Your task to perform on an android device: open a bookmark in the chrome app Image 0: 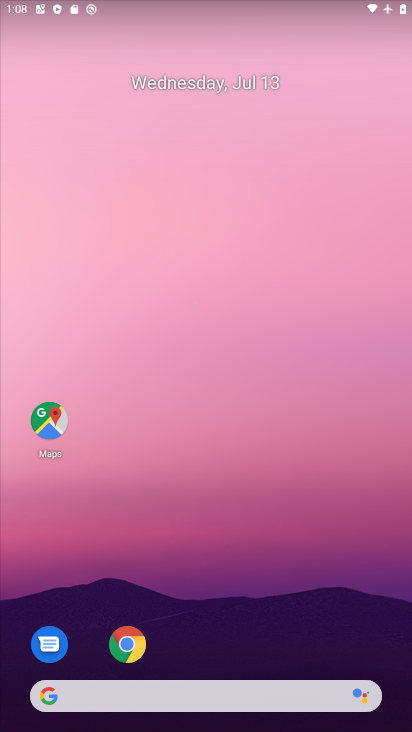
Step 0: drag from (301, 641) to (272, 134)
Your task to perform on an android device: open a bookmark in the chrome app Image 1: 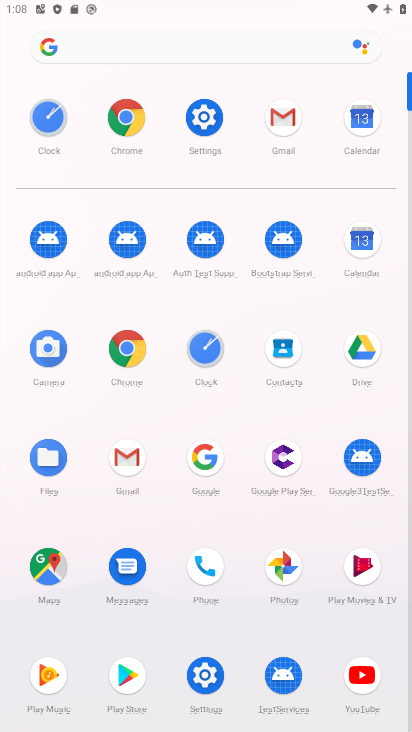
Step 1: click (131, 345)
Your task to perform on an android device: open a bookmark in the chrome app Image 2: 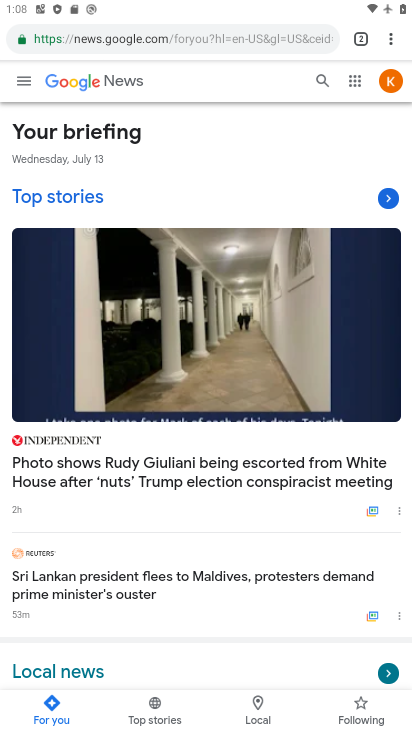
Step 2: drag from (395, 44) to (273, 155)
Your task to perform on an android device: open a bookmark in the chrome app Image 3: 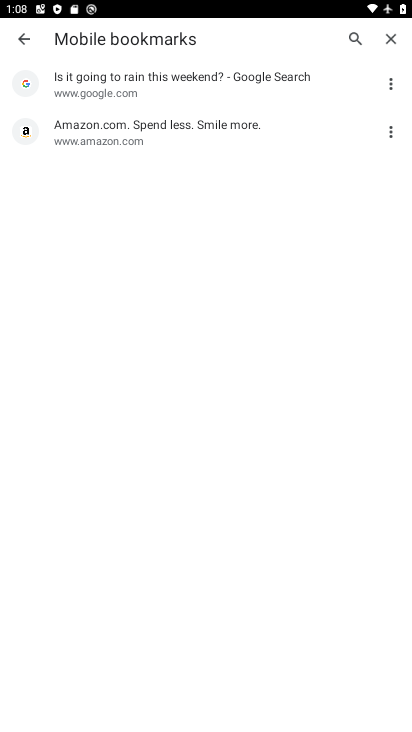
Step 3: click (215, 130)
Your task to perform on an android device: open a bookmark in the chrome app Image 4: 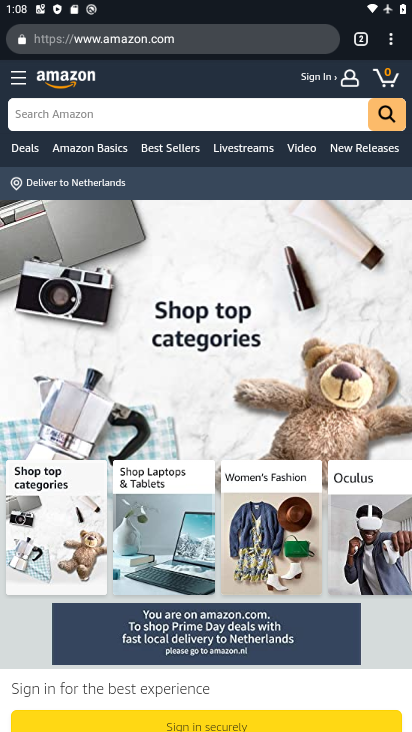
Step 4: task complete